Your task to perform on an android device: set default search engine in the chrome app Image 0: 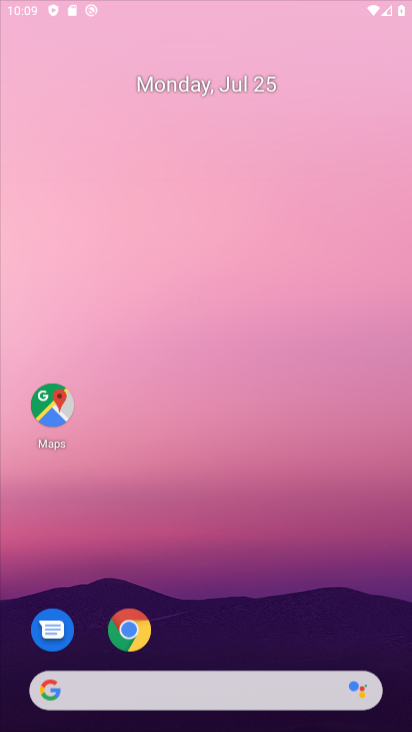
Step 0: press home button
Your task to perform on an android device: set default search engine in the chrome app Image 1: 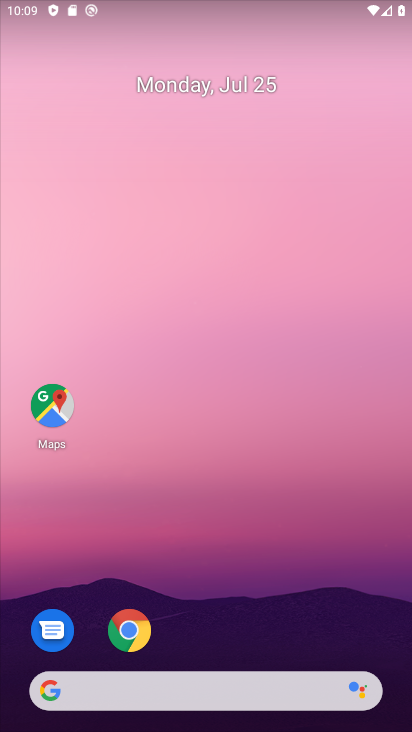
Step 1: drag from (287, 588) to (297, 65)
Your task to perform on an android device: set default search engine in the chrome app Image 2: 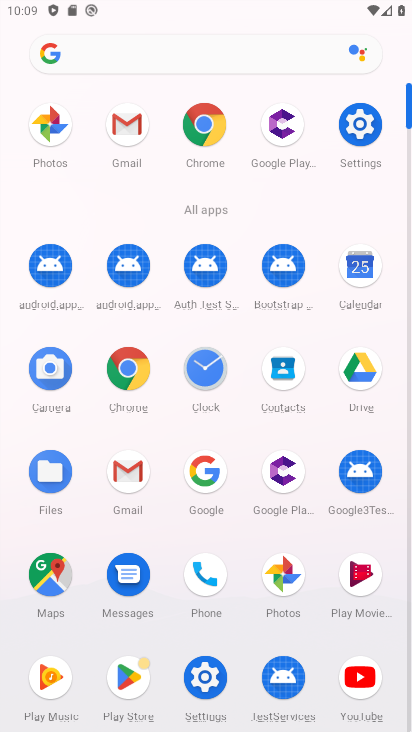
Step 2: click (125, 367)
Your task to perform on an android device: set default search engine in the chrome app Image 3: 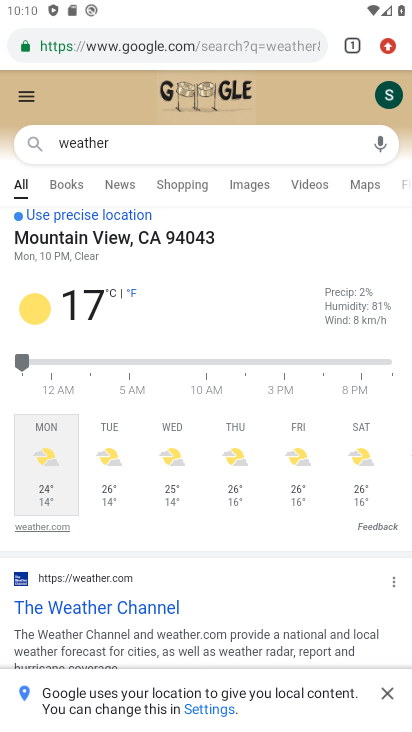
Step 3: drag from (402, 40) to (220, 560)
Your task to perform on an android device: set default search engine in the chrome app Image 4: 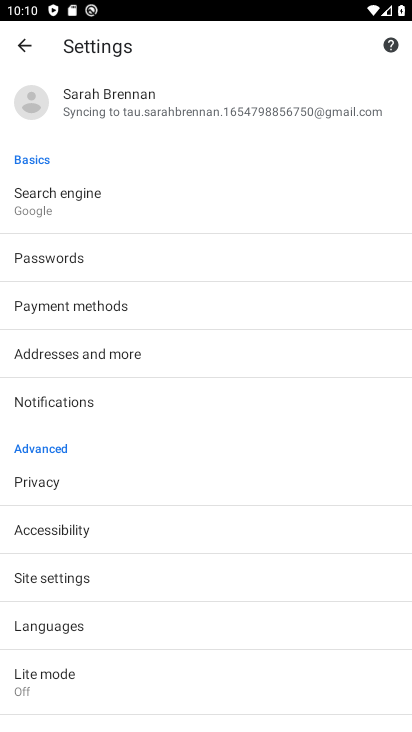
Step 4: click (101, 195)
Your task to perform on an android device: set default search engine in the chrome app Image 5: 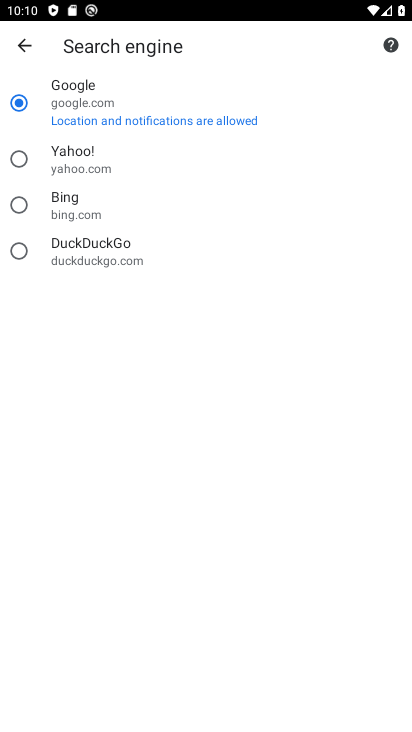
Step 5: task complete